Your task to perform on an android device: turn pop-ups off in chrome Image 0: 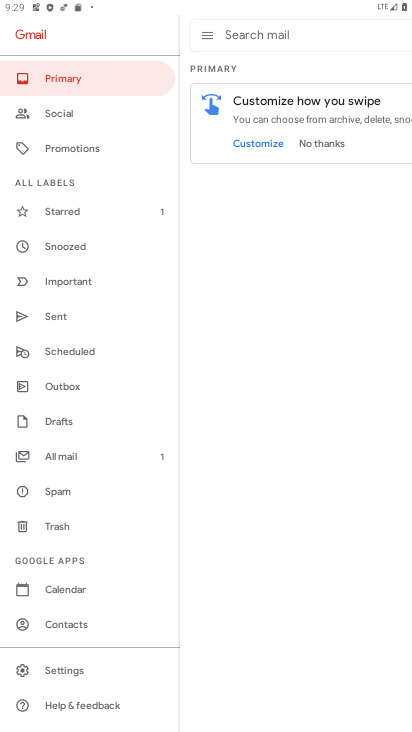
Step 0: press home button
Your task to perform on an android device: turn pop-ups off in chrome Image 1: 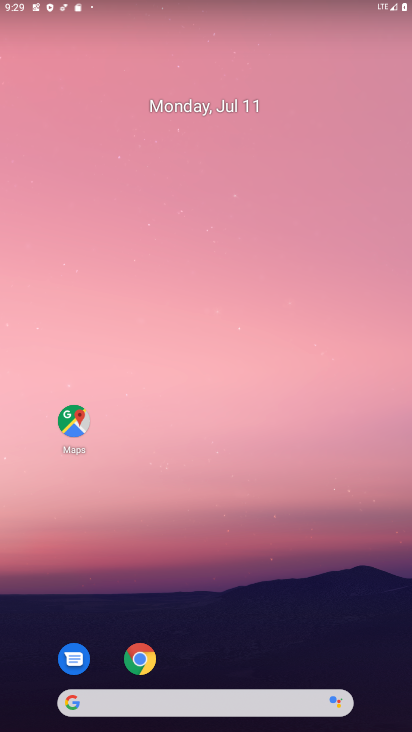
Step 1: drag from (226, 722) to (215, 108)
Your task to perform on an android device: turn pop-ups off in chrome Image 2: 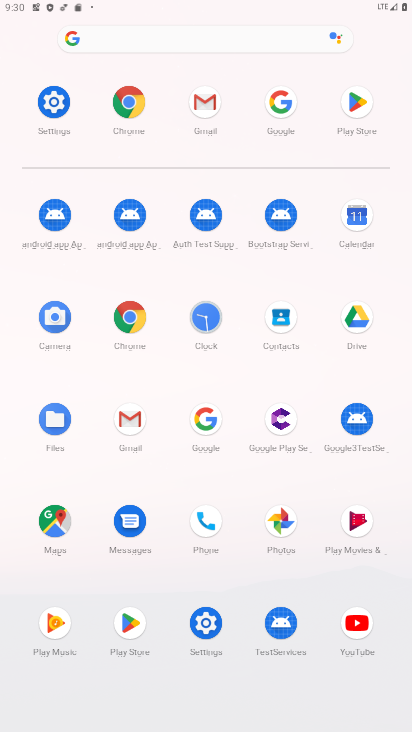
Step 2: click (131, 106)
Your task to perform on an android device: turn pop-ups off in chrome Image 3: 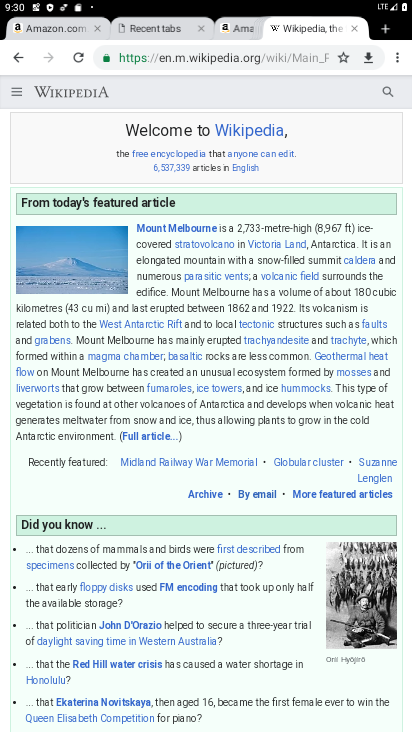
Step 3: click (398, 57)
Your task to perform on an android device: turn pop-ups off in chrome Image 4: 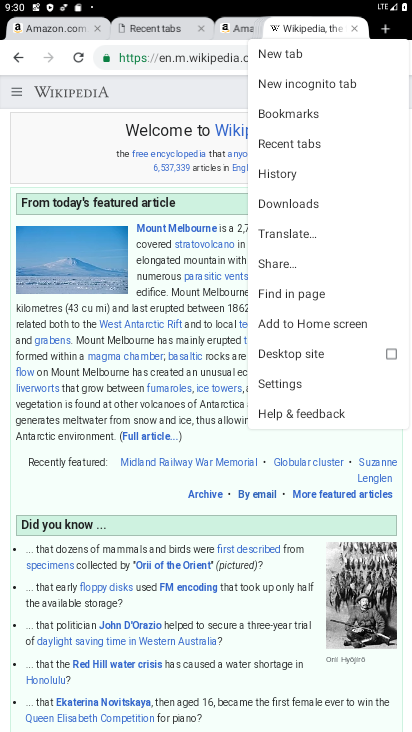
Step 4: click (276, 382)
Your task to perform on an android device: turn pop-ups off in chrome Image 5: 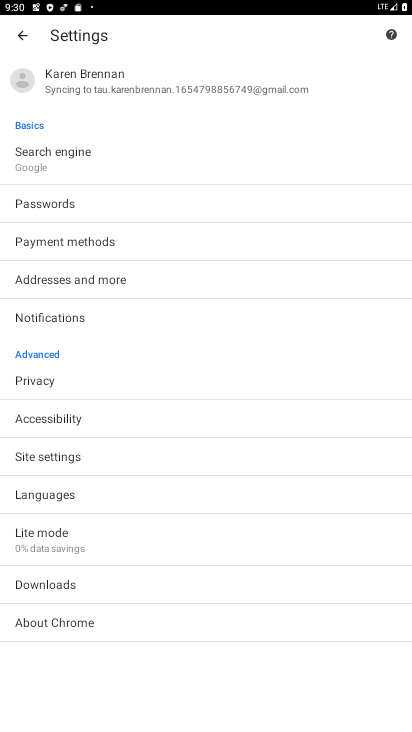
Step 5: click (55, 449)
Your task to perform on an android device: turn pop-ups off in chrome Image 6: 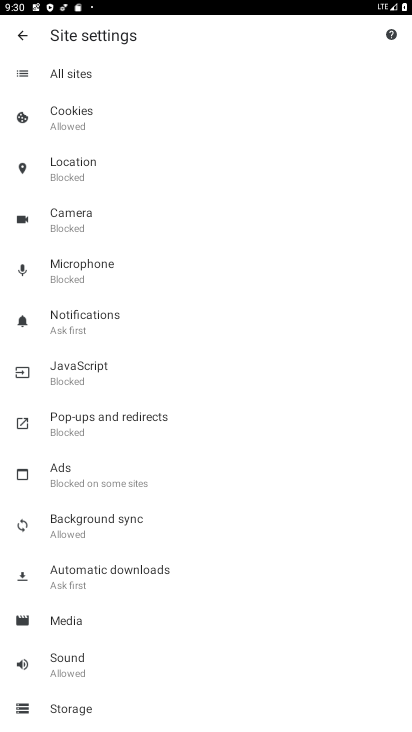
Step 6: click (68, 420)
Your task to perform on an android device: turn pop-ups off in chrome Image 7: 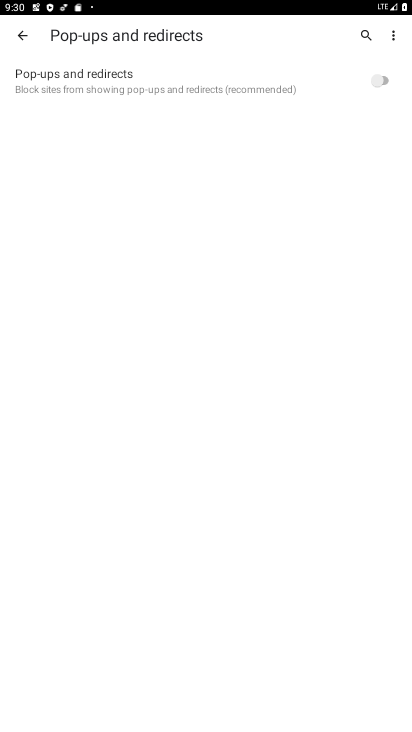
Step 7: task complete